Your task to perform on an android device: turn on the 24-hour format for clock Image 0: 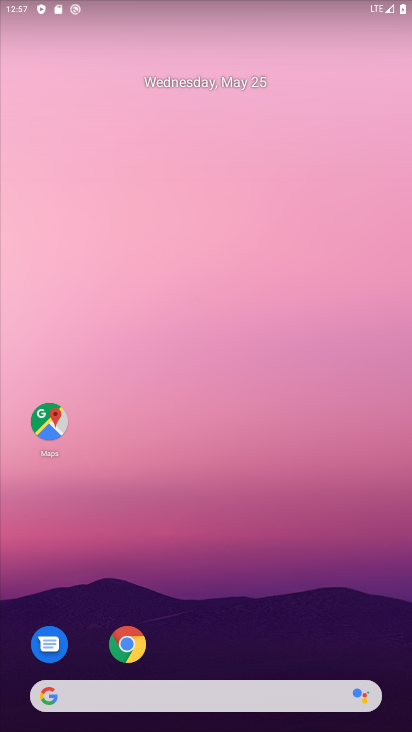
Step 0: drag from (207, 578) to (175, 233)
Your task to perform on an android device: turn on the 24-hour format for clock Image 1: 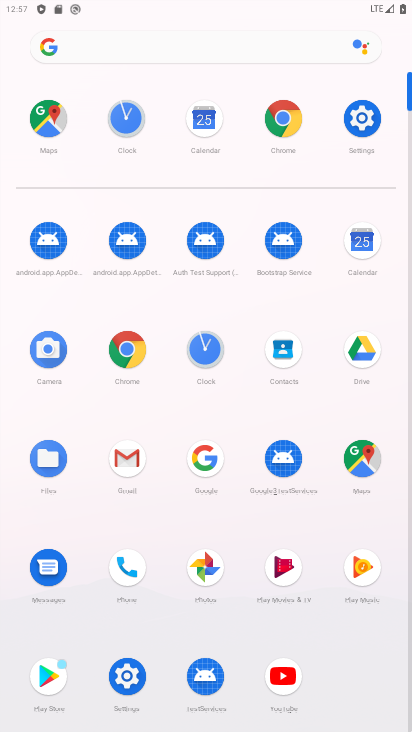
Step 1: click (206, 350)
Your task to perform on an android device: turn on the 24-hour format for clock Image 2: 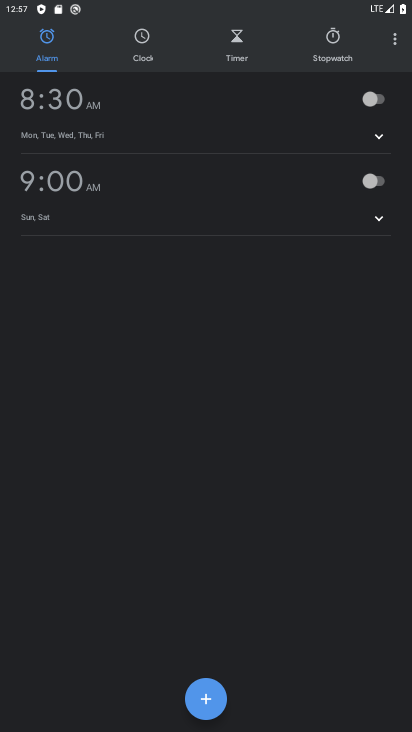
Step 2: click (394, 34)
Your task to perform on an android device: turn on the 24-hour format for clock Image 3: 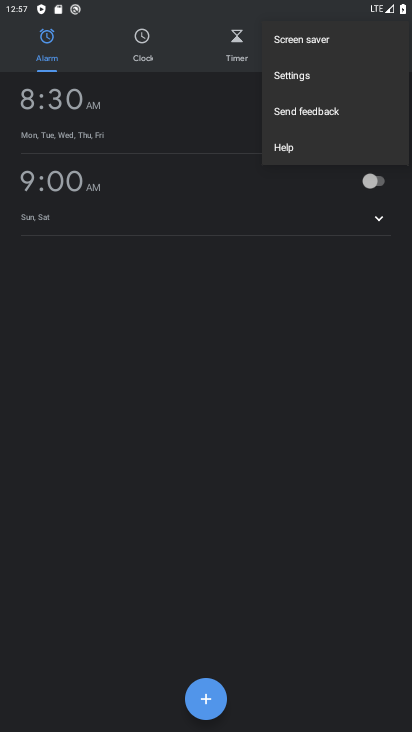
Step 3: click (291, 73)
Your task to perform on an android device: turn on the 24-hour format for clock Image 4: 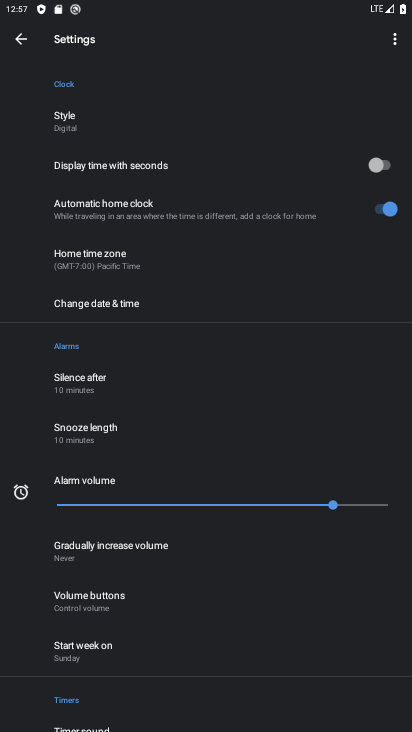
Step 4: click (113, 300)
Your task to perform on an android device: turn on the 24-hour format for clock Image 5: 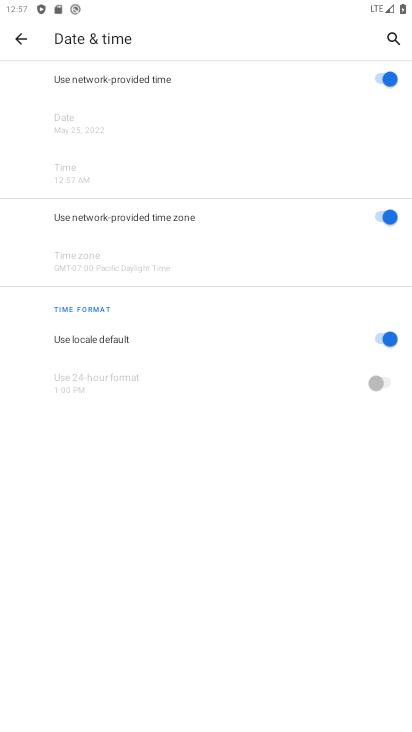
Step 5: click (375, 378)
Your task to perform on an android device: turn on the 24-hour format for clock Image 6: 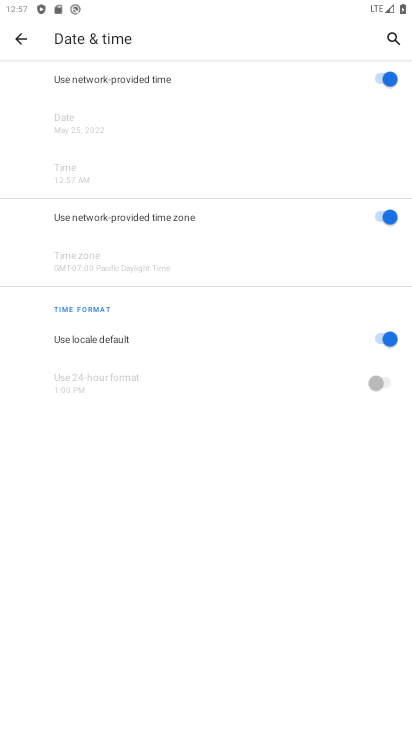
Step 6: click (390, 331)
Your task to perform on an android device: turn on the 24-hour format for clock Image 7: 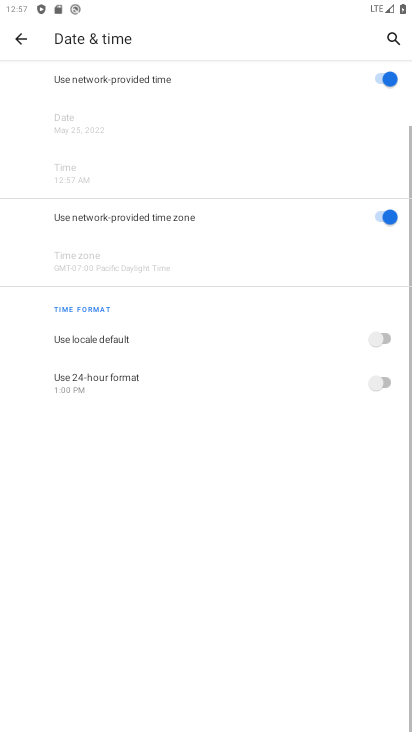
Step 7: click (379, 387)
Your task to perform on an android device: turn on the 24-hour format for clock Image 8: 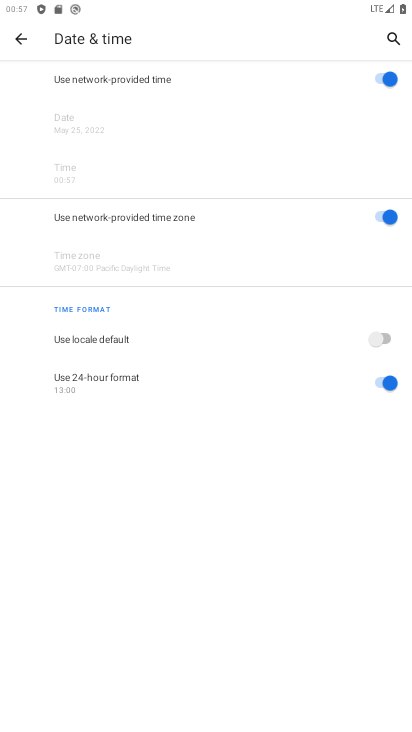
Step 8: task complete